Your task to perform on an android device: Open the camera Image 0: 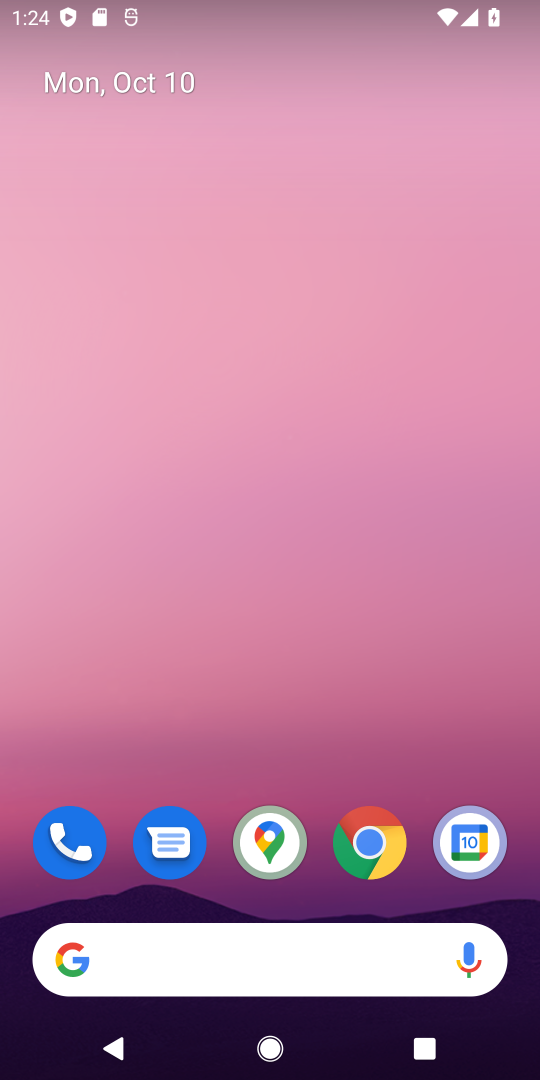
Step 0: click (375, 854)
Your task to perform on an android device: Open the camera Image 1: 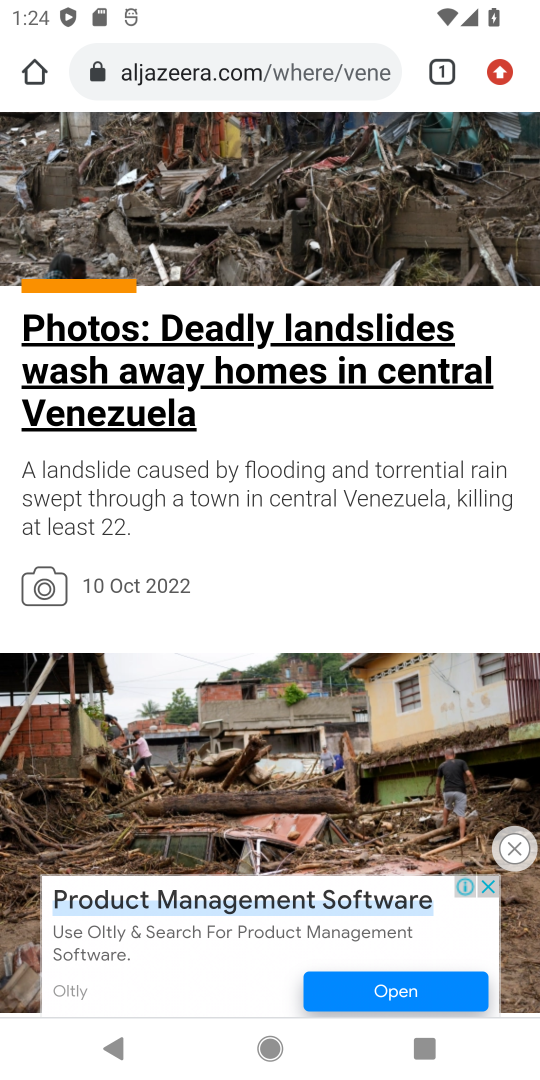
Step 1: press home button
Your task to perform on an android device: Open the camera Image 2: 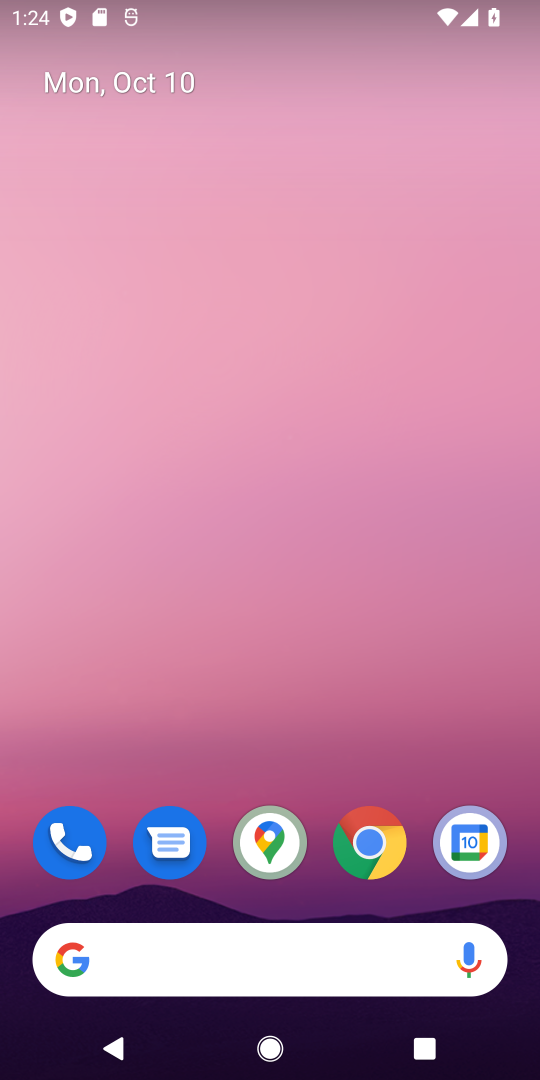
Step 2: drag from (359, 799) to (389, 302)
Your task to perform on an android device: Open the camera Image 3: 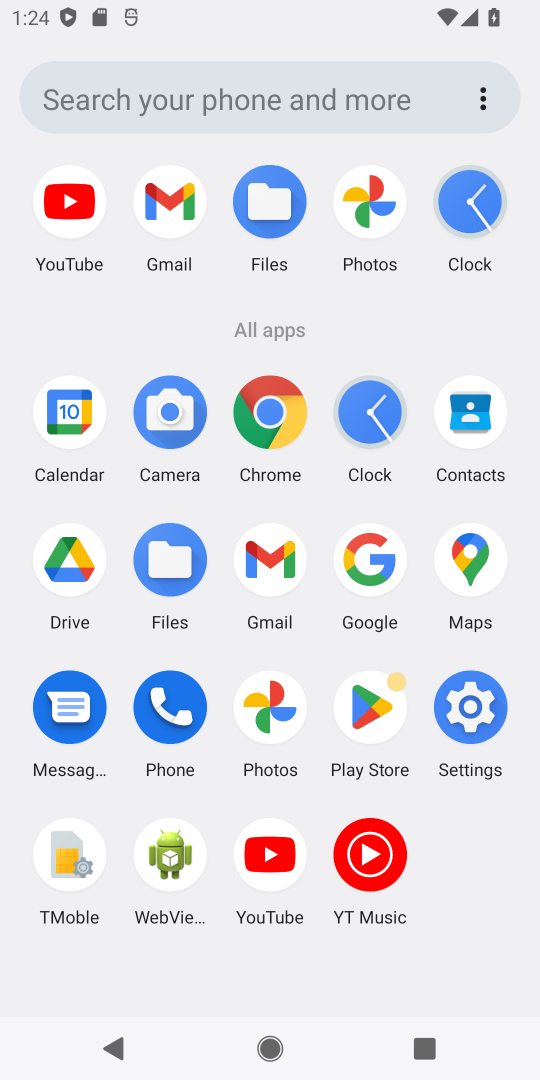
Step 3: click (185, 419)
Your task to perform on an android device: Open the camera Image 4: 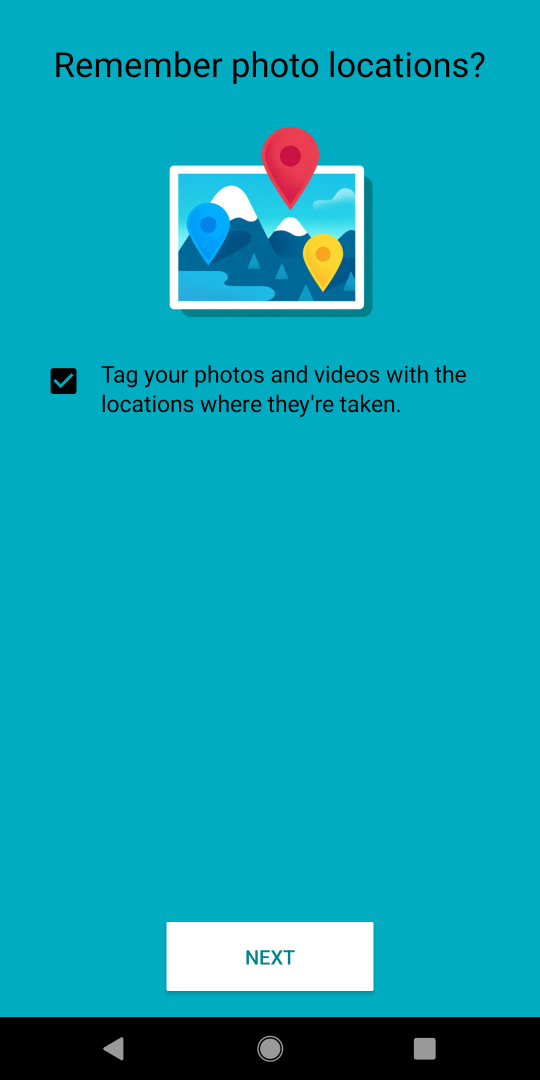
Step 4: click (302, 972)
Your task to perform on an android device: Open the camera Image 5: 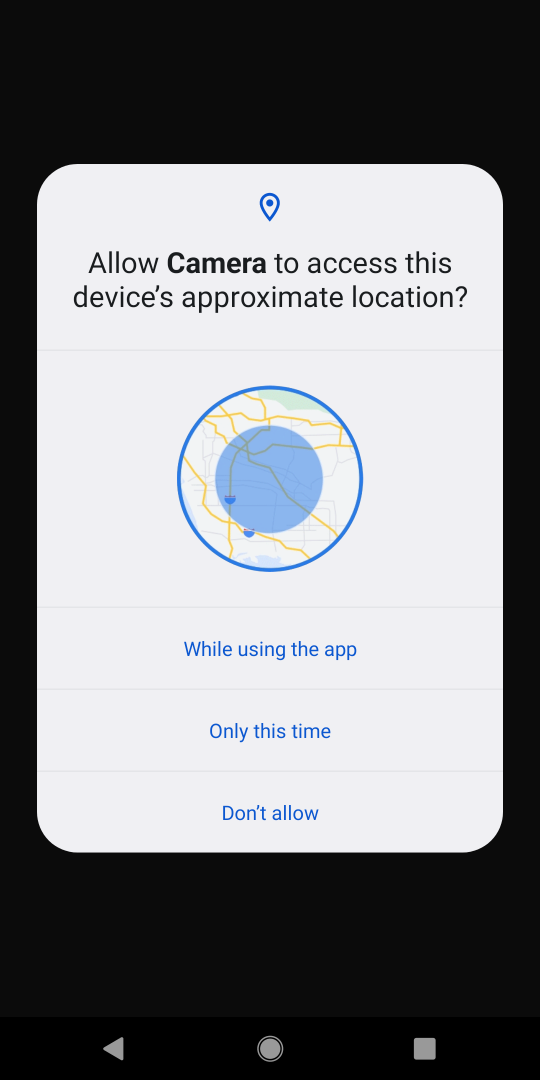
Step 5: click (305, 640)
Your task to perform on an android device: Open the camera Image 6: 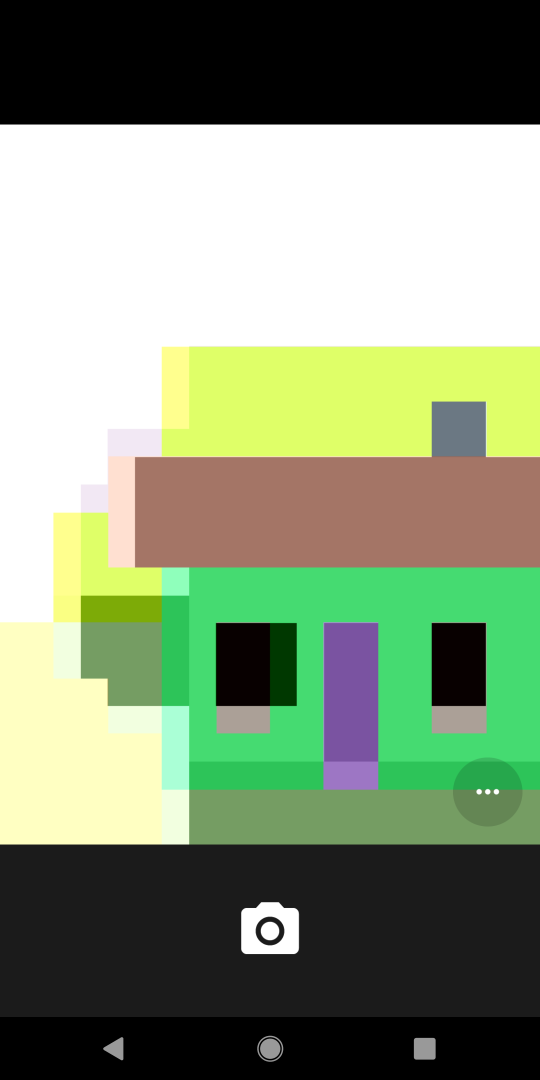
Step 6: task complete